Your task to perform on an android device: Empty the shopping cart on bestbuy. Add "usb-c" to the cart on bestbuy, then select checkout. Image 0: 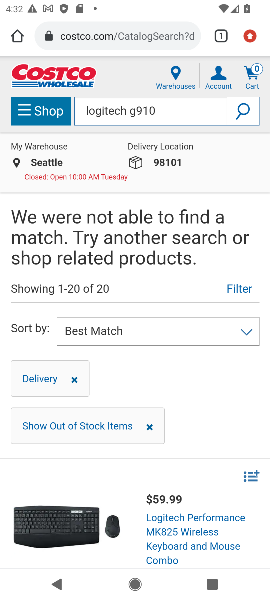
Step 0: click (93, 36)
Your task to perform on an android device: Empty the shopping cart on bestbuy. Add "usb-c" to the cart on bestbuy, then select checkout. Image 1: 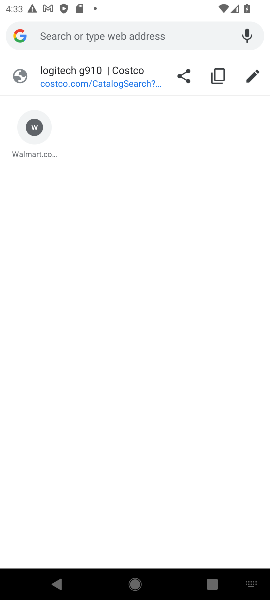
Step 1: type "bestbuy"
Your task to perform on an android device: Empty the shopping cart on bestbuy. Add "usb-c" to the cart on bestbuy, then select checkout. Image 2: 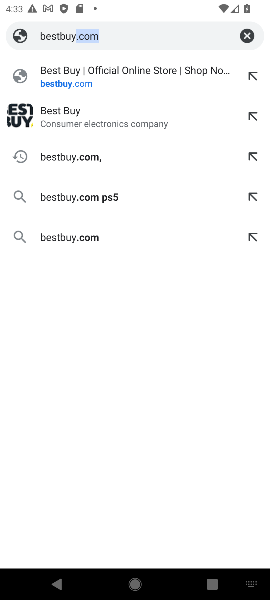
Step 2: click (96, 84)
Your task to perform on an android device: Empty the shopping cart on bestbuy. Add "usb-c" to the cart on bestbuy, then select checkout. Image 3: 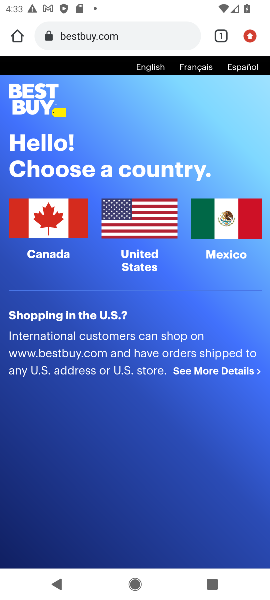
Step 3: click (114, 201)
Your task to perform on an android device: Empty the shopping cart on bestbuy. Add "usb-c" to the cart on bestbuy, then select checkout. Image 4: 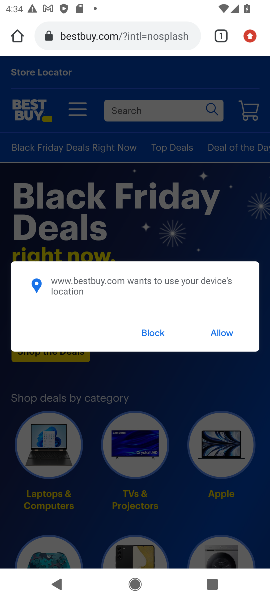
Step 4: click (209, 332)
Your task to perform on an android device: Empty the shopping cart on bestbuy. Add "usb-c" to the cart on bestbuy, then select checkout. Image 5: 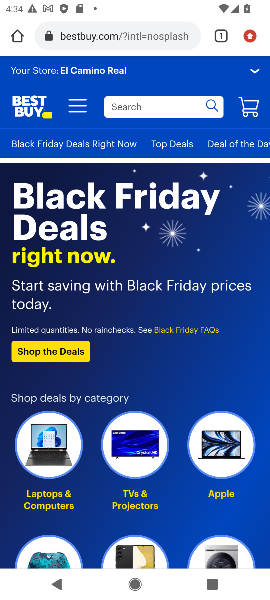
Step 5: click (155, 110)
Your task to perform on an android device: Empty the shopping cart on bestbuy. Add "usb-c" to the cart on bestbuy, then select checkout. Image 6: 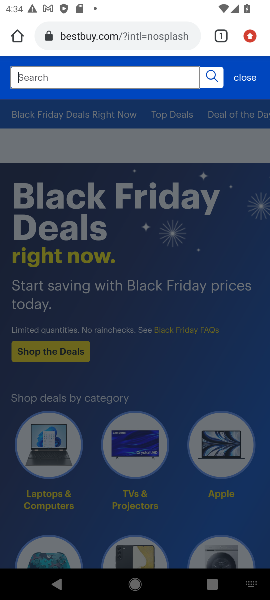
Step 6: type "usb-c"
Your task to perform on an android device: Empty the shopping cart on bestbuy. Add "usb-c" to the cart on bestbuy, then select checkout. Image 7: 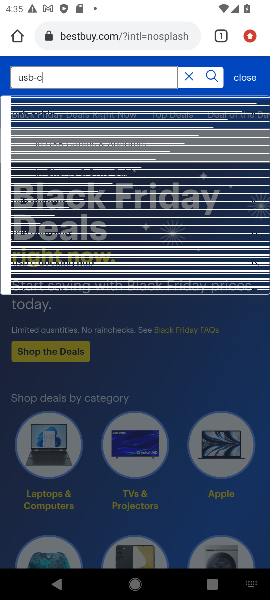
Step 7: click (213, 76)
Your task to perform on an android device: Empty the shopping cart on bestbuy. Add "usb-c" to the cart on bestbuy, then select checkout. Image 8: 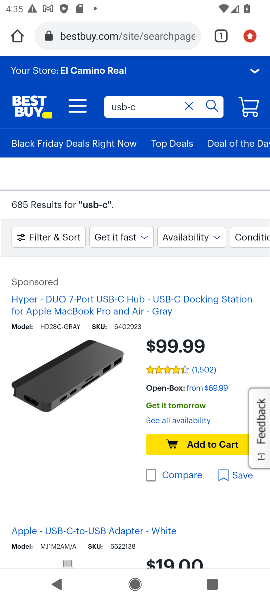
Step 8: click (174, 446)
Your task to perform on an android device: Empty the shopping cart on bestbuy. Add "usb-c" to the cart on bestbuy, then select checkout. Image 9: 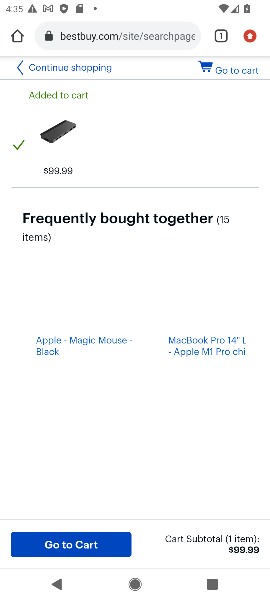
Step 9: click (61, 542)
Your task to perform on an android device: Empty the shopping cart on bestbuy. Add "usb-c" to the cart on bestbuy, then select checkout. Image 10: 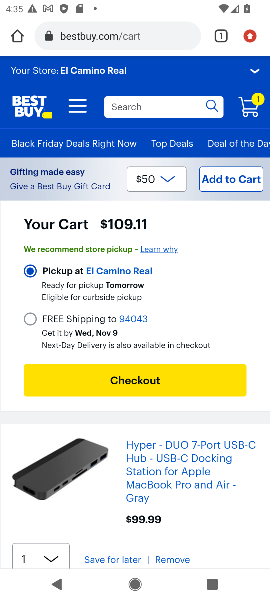
Step 10: click (146, 387)
Your task to perform on an android device: Empty the shopping cart on bestbuy. Add "usb-c" to the cart on bestbuy, then select checkout. Image 11: 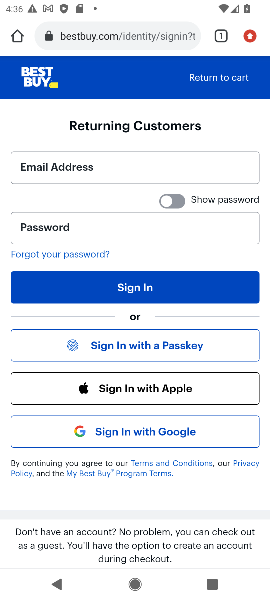
Step 11: task complete